Your task to perform on an android device: Open Google Chrome and click the shortcut for Amazon.com Image 0: 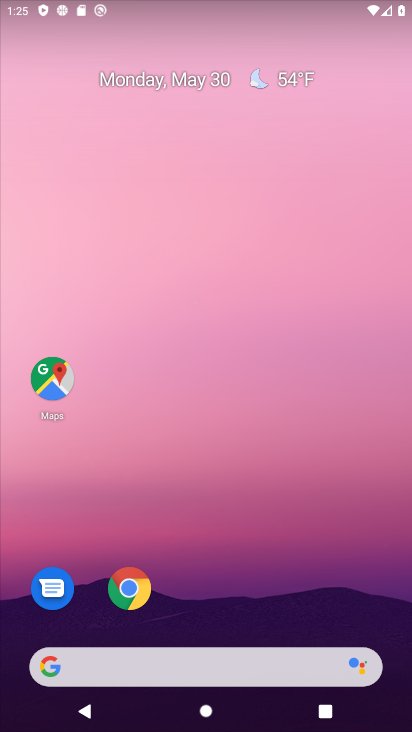
Step 0: click (133, 585)
Your task to perform on an android device: Open Google Chrome and click the shortcut for Amazon.com Image 1: 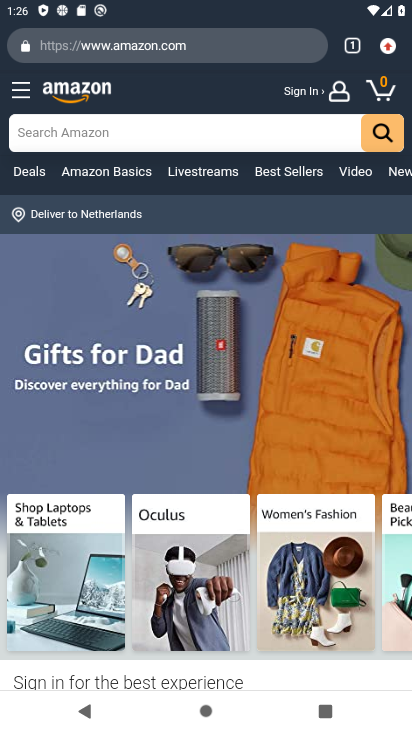
Step 1: task complete